Your task to perform on an android device: Open Google Image 0: 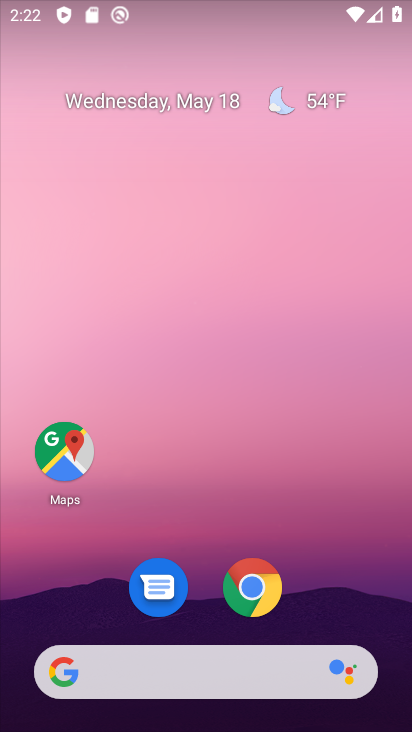
Step 0: drag from (330, 588) to (287, 81)
Your task to perform on an android device: Open Google Image 1: 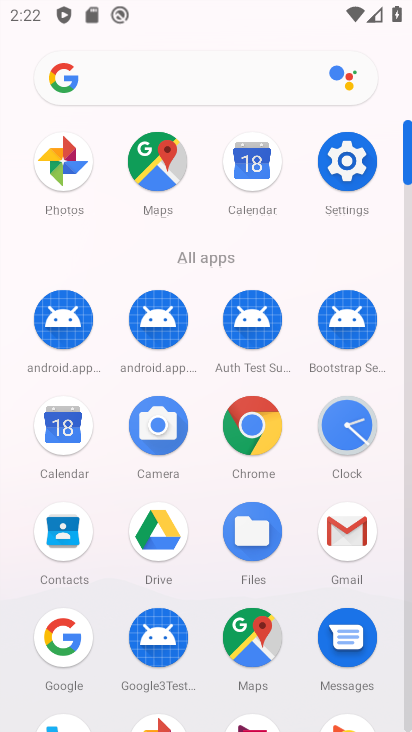
Step 1: click (59, 651)
Your task to perform on an android device: Open Google Image 2: 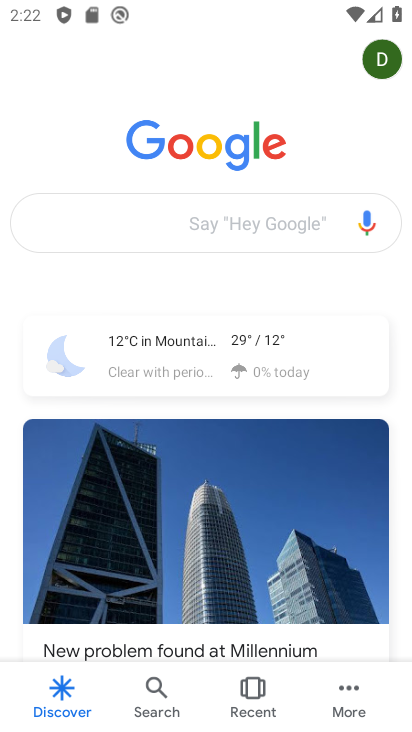
Step 2: task complete